Your task to perform on an android device: Open the map Image 0: 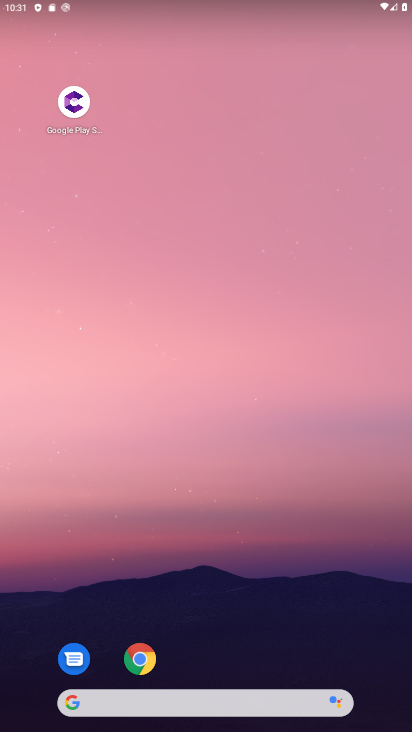
Step 0: drag from (46, 589) to (188, 194)
Your task to perform on an android device: Open the map Image 1: 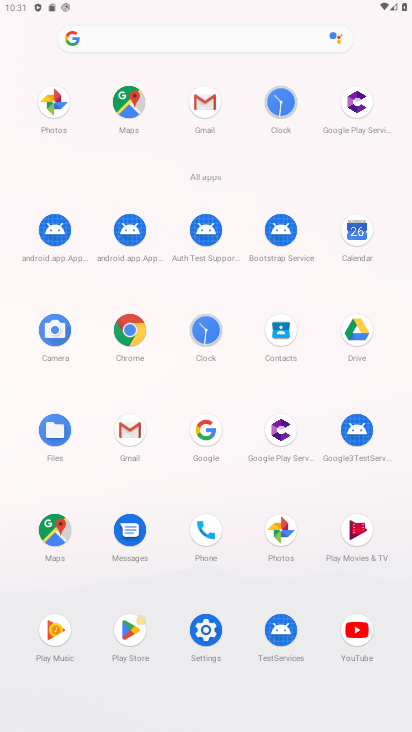
Step 1: click (66, 530)
Your task to perform on an android device: Open the map Image 2: 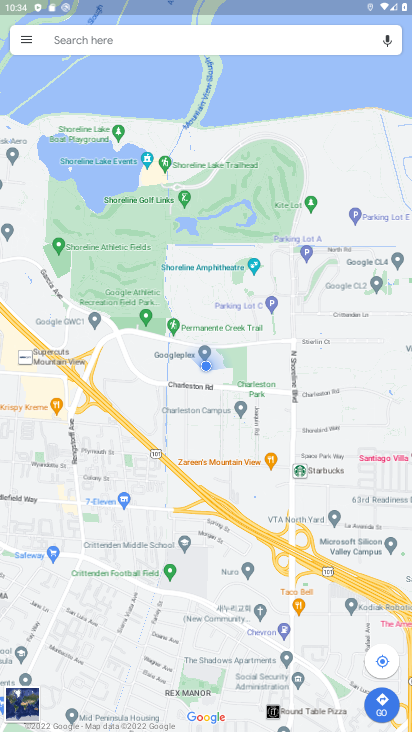
Step 2: task complete